Your task to perform on an android device: change the clock display to show seconds Image 0: 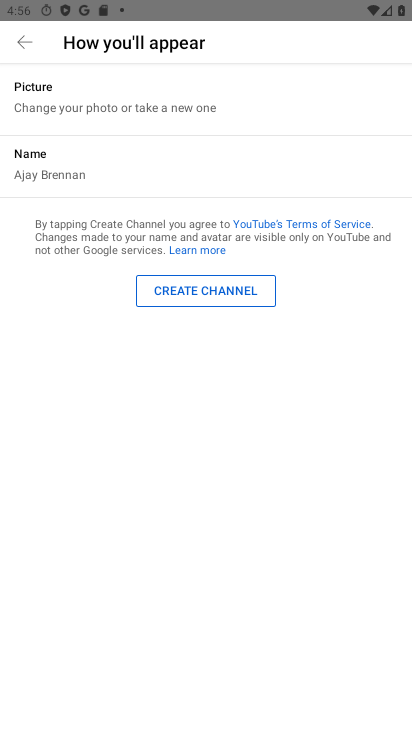
Step 0: drag from (269, 587) to (255, 62)
Your task to perform on an android device: change the clock display to show seconds Image 1: 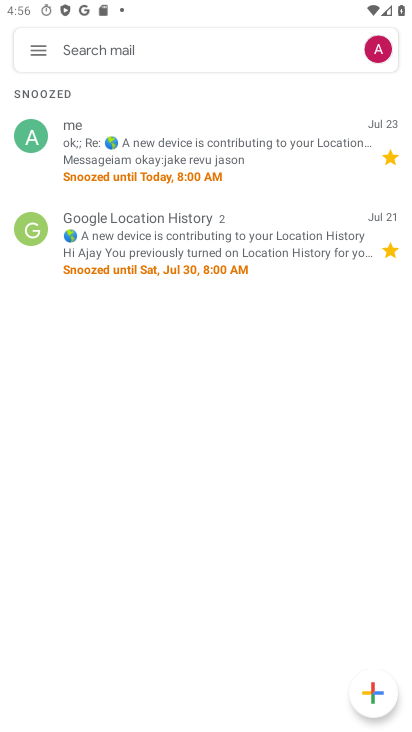
Step 1: press home button
Your task to perform on an android device: change the clock display to show seconds Image 2: 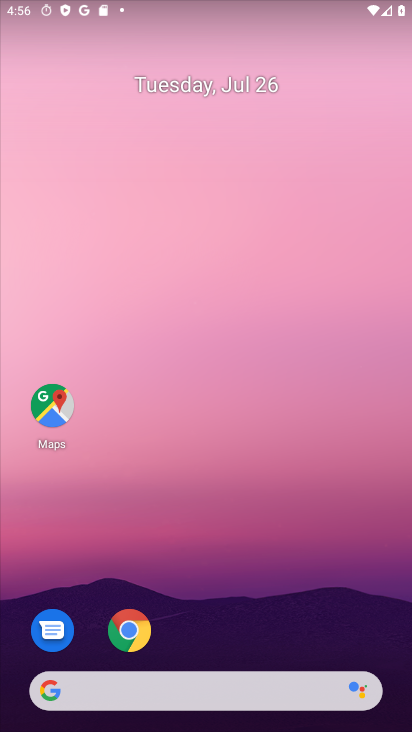
Step 2: drag from (343, 588) to (256, 9)
Your task to perform on an android device: change the clock display to show seconds Image 3: 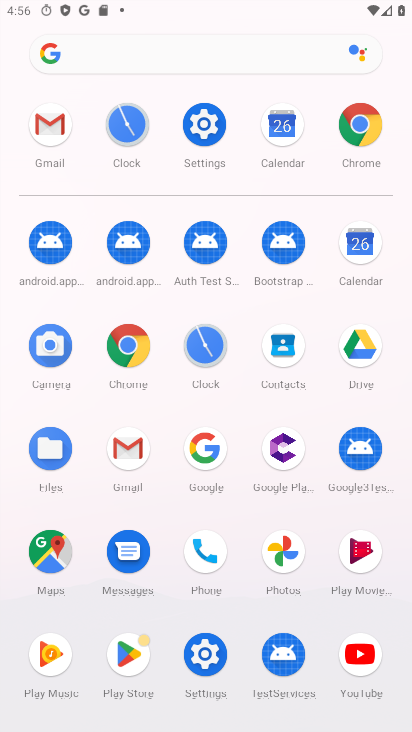
Step 3: click (200, 355)
Your task to perform on an android device: change the clock display to show seconds Image 4: 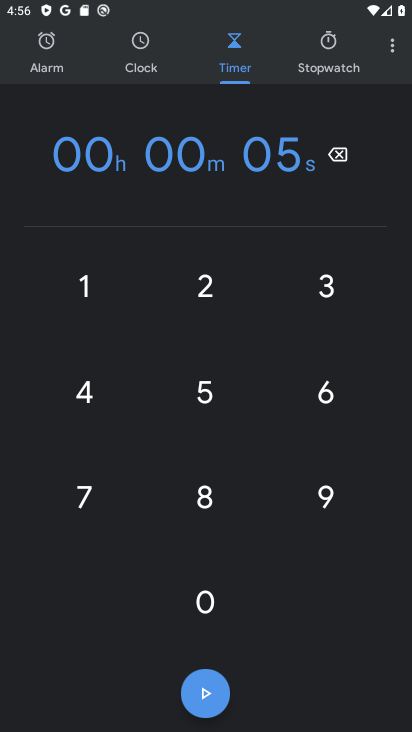
Step 4: click (391, 45)
Your task to perform on an android device: change the clock display to show seconds Image 5: 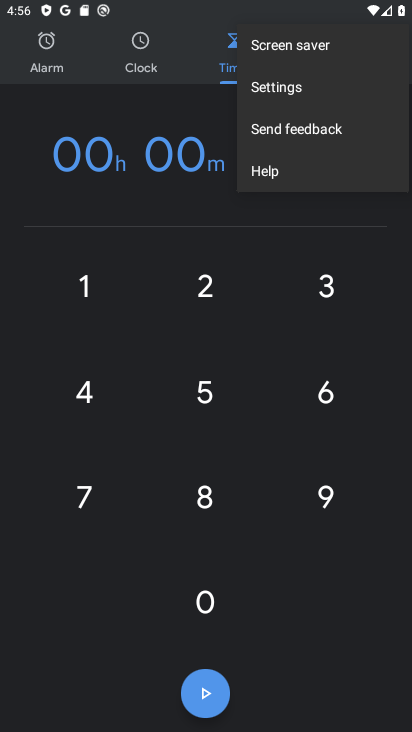
Step 5: click (270, 89)
Your task to perform on an android device: change the clock display to show seconds Image 6: 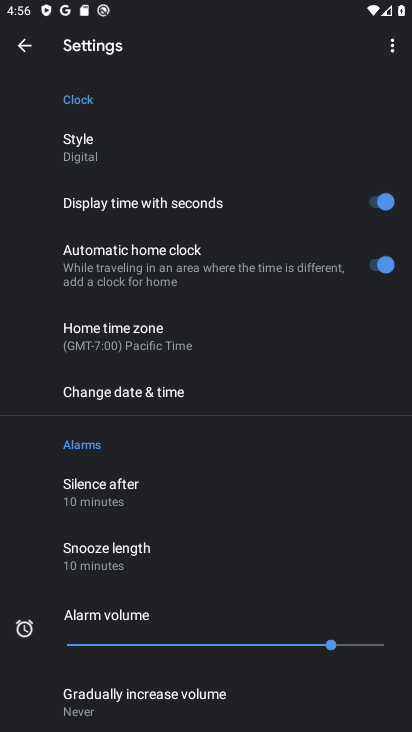
Step 6: drag from (250, 569) to (272, 61)
Your task to perform on an android device: change the clock display to show seconds Image 7: 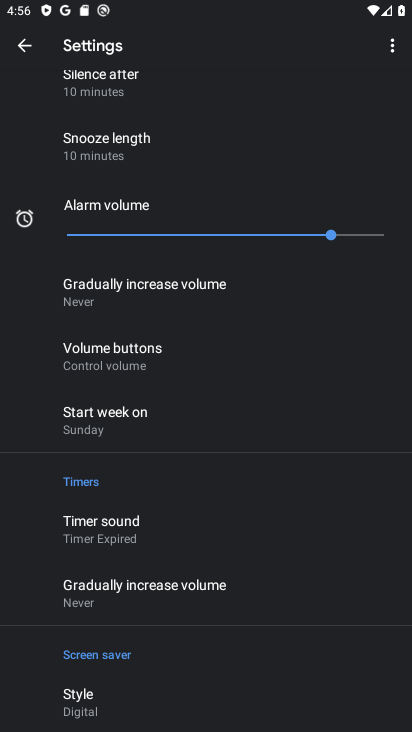
Step 7: drag from (283, 588) to (305, 171)
Your task to perform on an android device: change the clock display to show seconds Image 8: 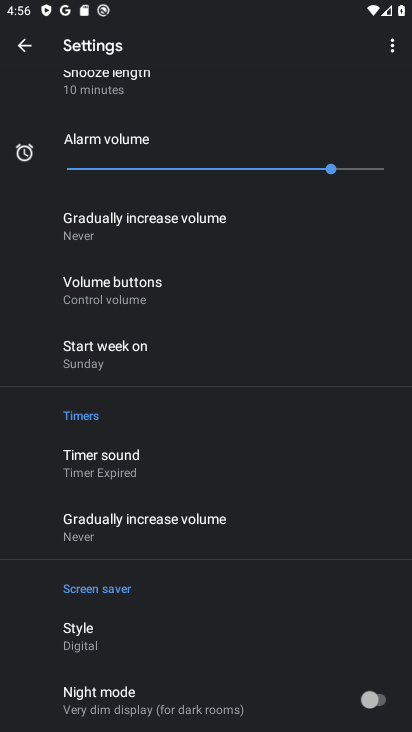
Step 8: drag from (223, 242) to (244, 729)
Your task to perform on an android device: change the clock display to show seconds Image 9: 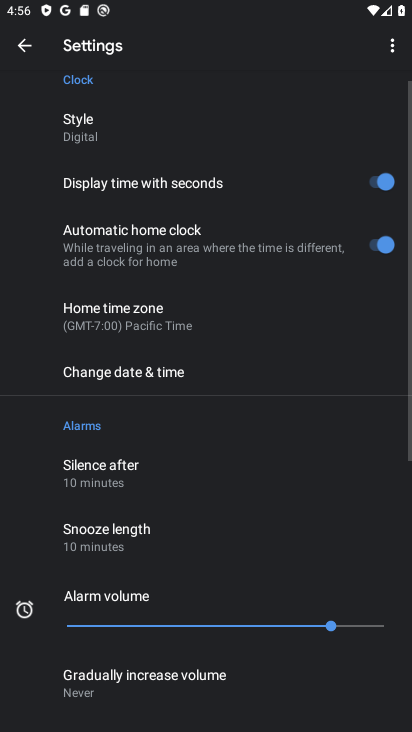
Step 9: drag from (224, 173) to (222, 614)
Your task to perform on an android device: change the clock display to show seconds Image 10: 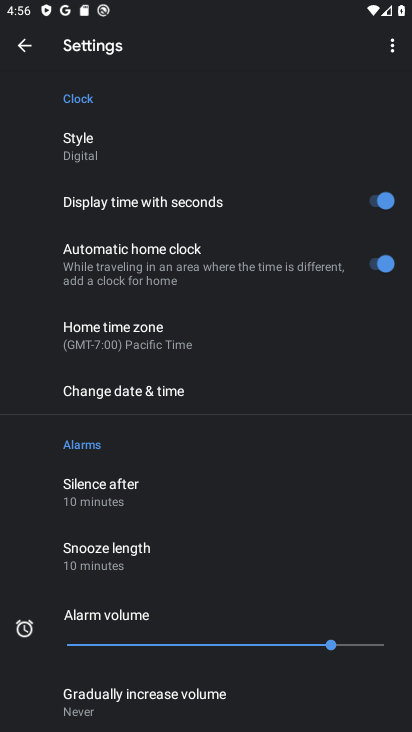
Step 10: click (377, 212)
Your task to perform on an android device: change the clock display to show seconds Image 11: 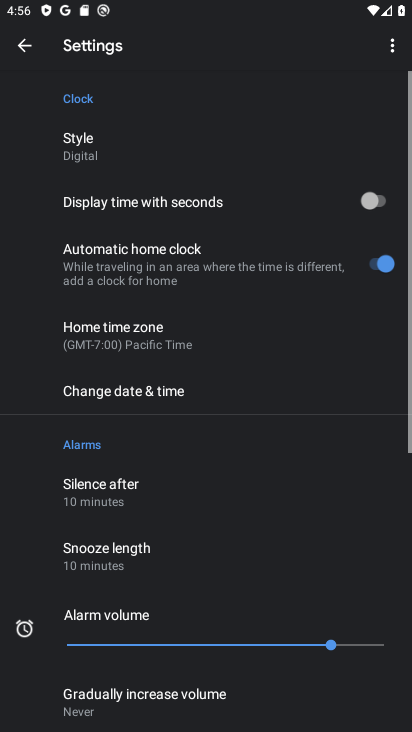
Step 11: task complete